Your task to perform on an android device: Search for macbook on ebay, select the first entry, add it to the cart, then select checkout. Image 0: 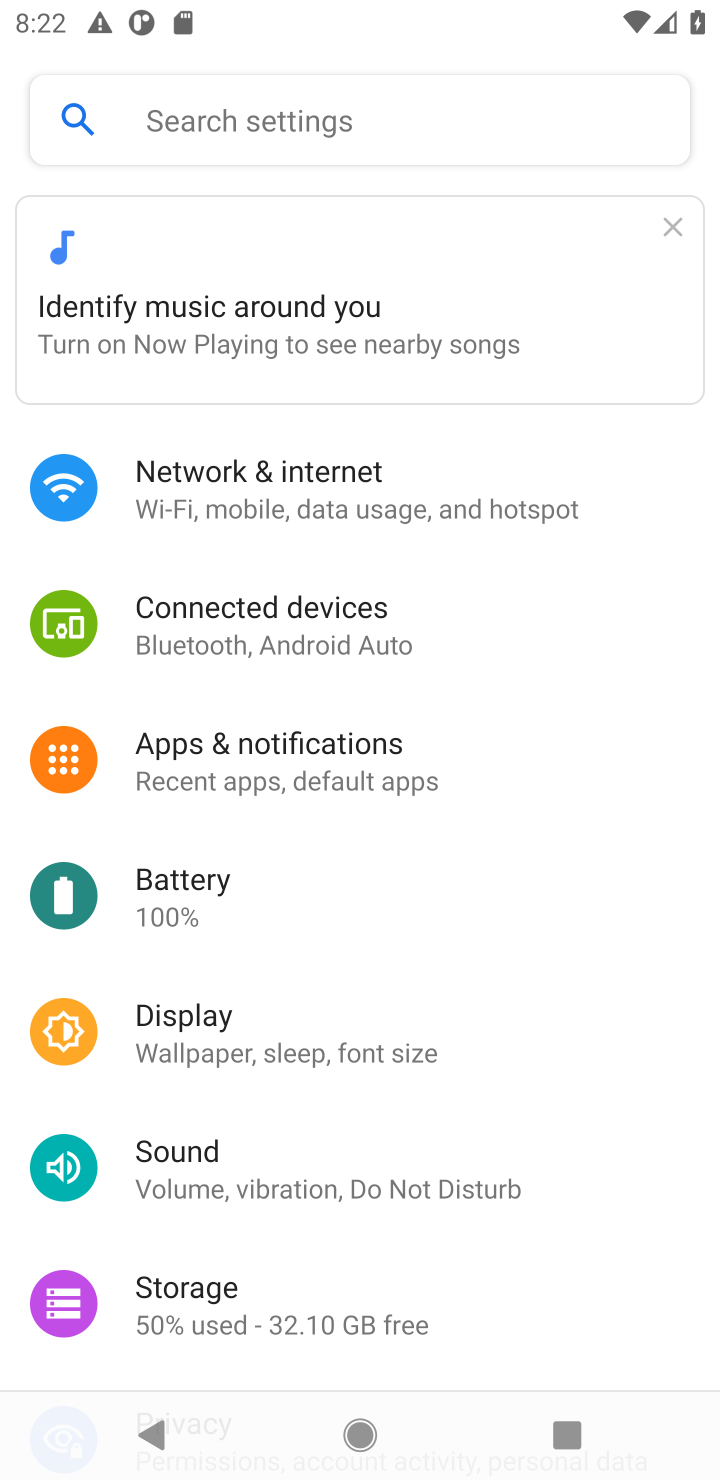
Step 0: press home button
Your task to perform on an android device: Search for macbook on ebay, select the first entry, add it to the cart, then select checkout. Image 1: 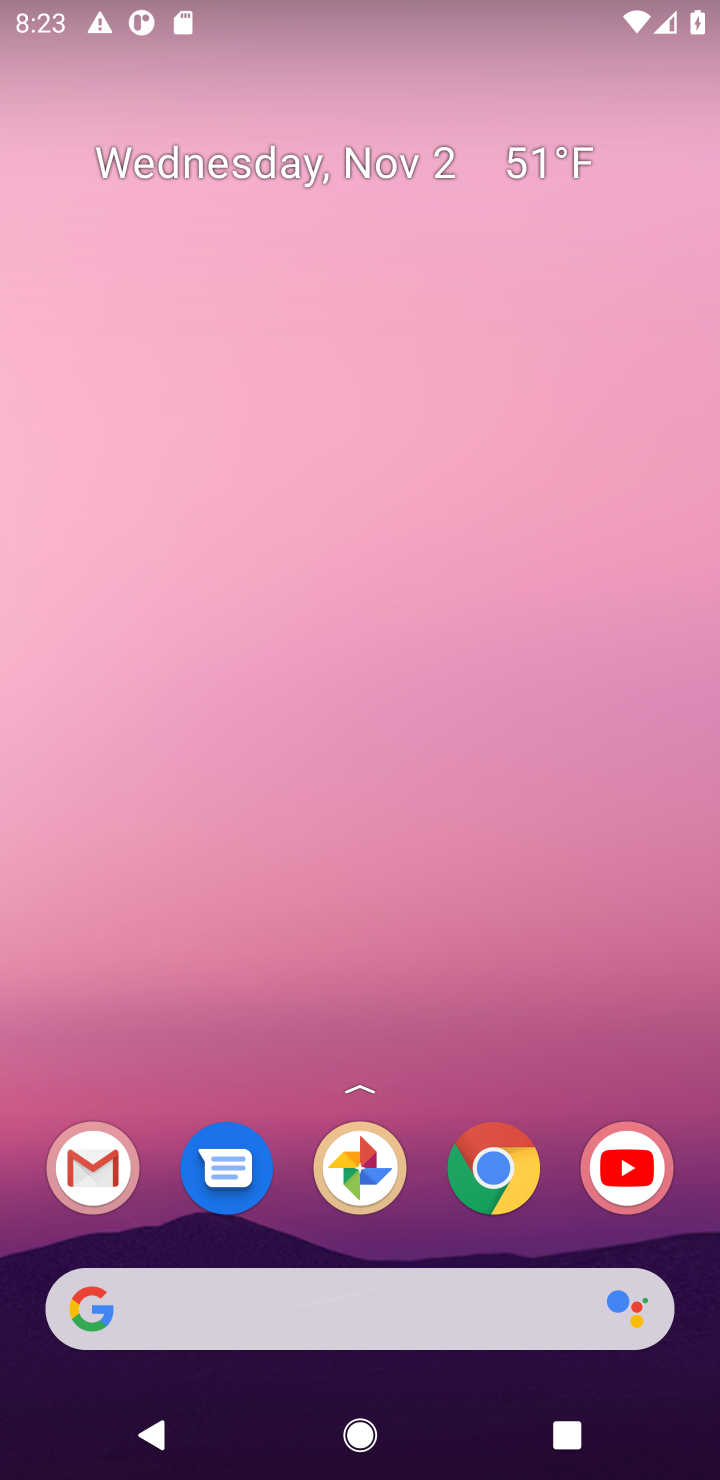
Step 1: click (506, 1165)
Your task to perform on an android device: Search for macbook on ebay, select the first entry, add it to the cart, then select checkout. Image 2: 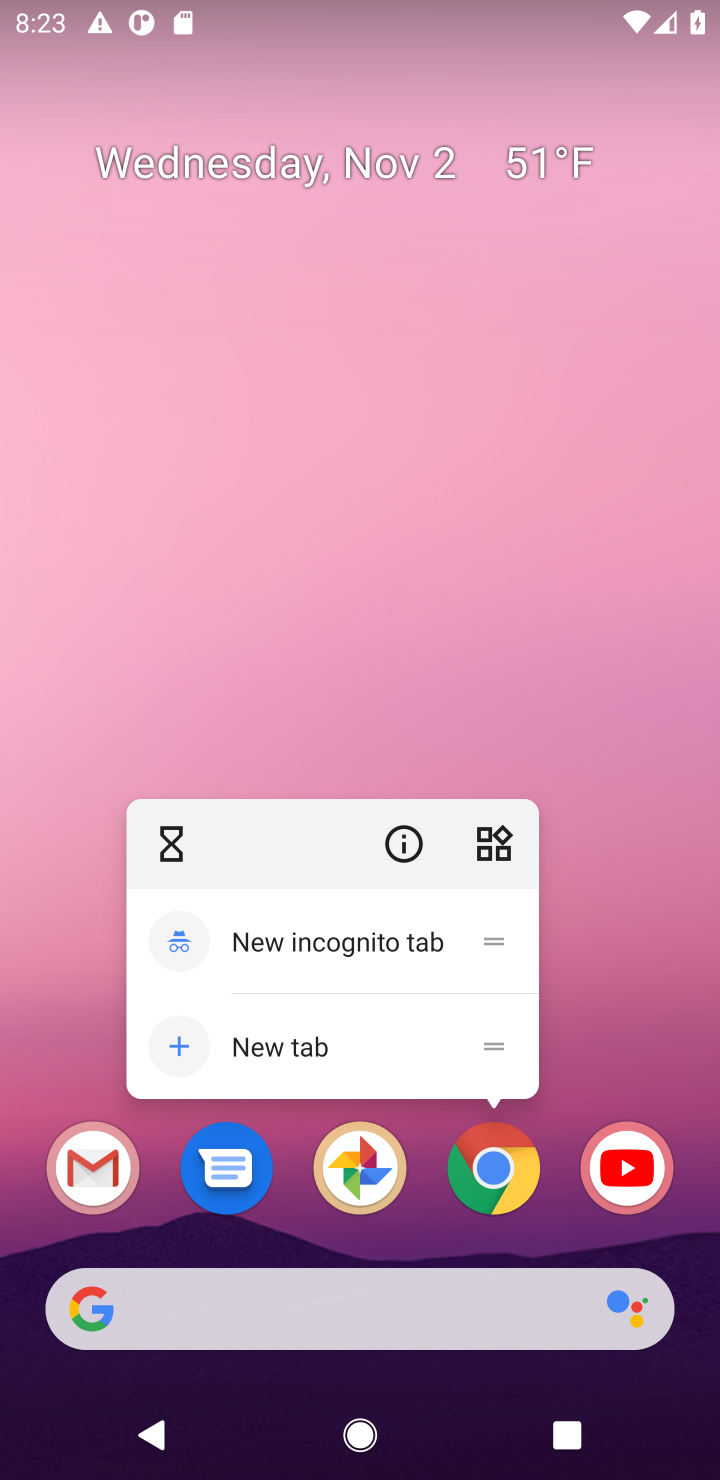
Step 2: click (525, 1183)
Your task to perform on an android device: Search for macbook on ebay, select the first entry, add it to the cart, then select checkout. Image 3: 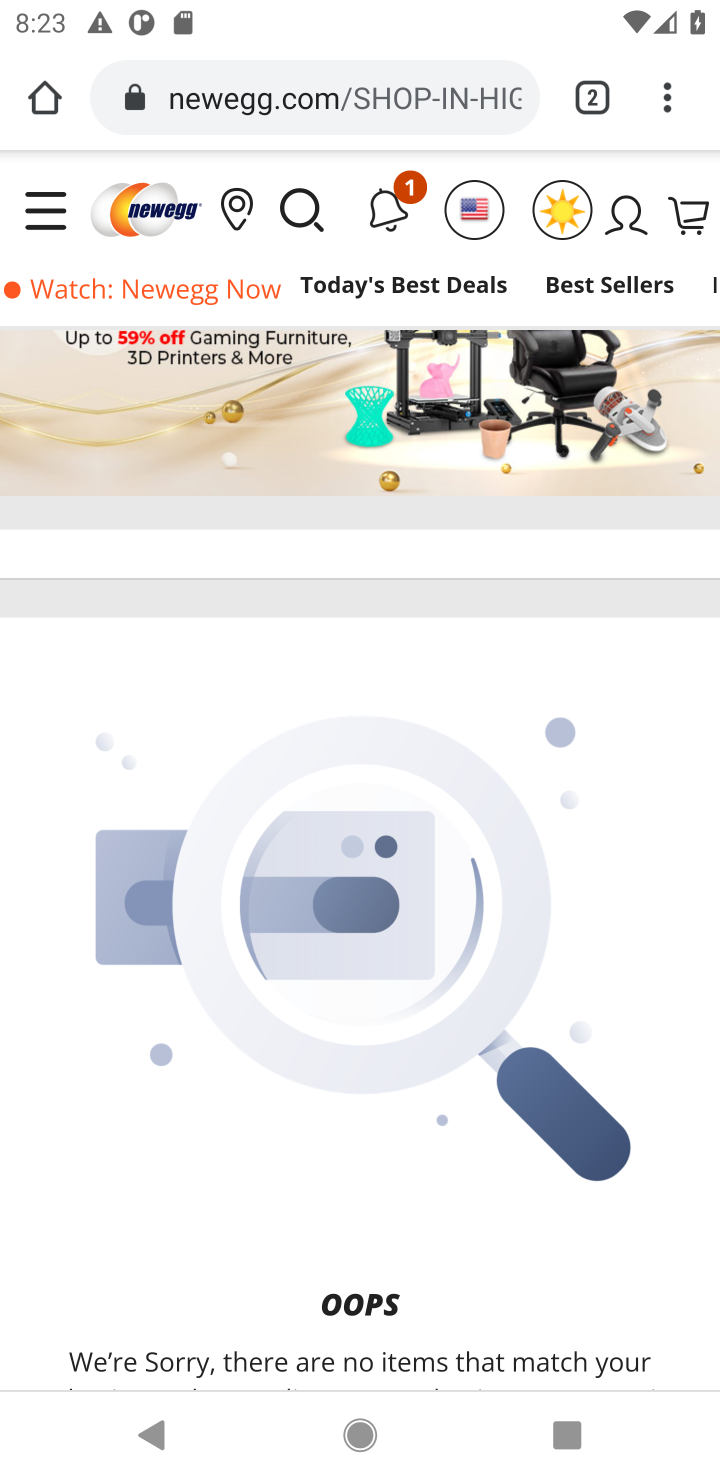
Step 3: click (291, 88)
Your task to perform on an android device: Search for macbook on ebay, select the first entry, add it to the cart, then select checkout. Image 4: 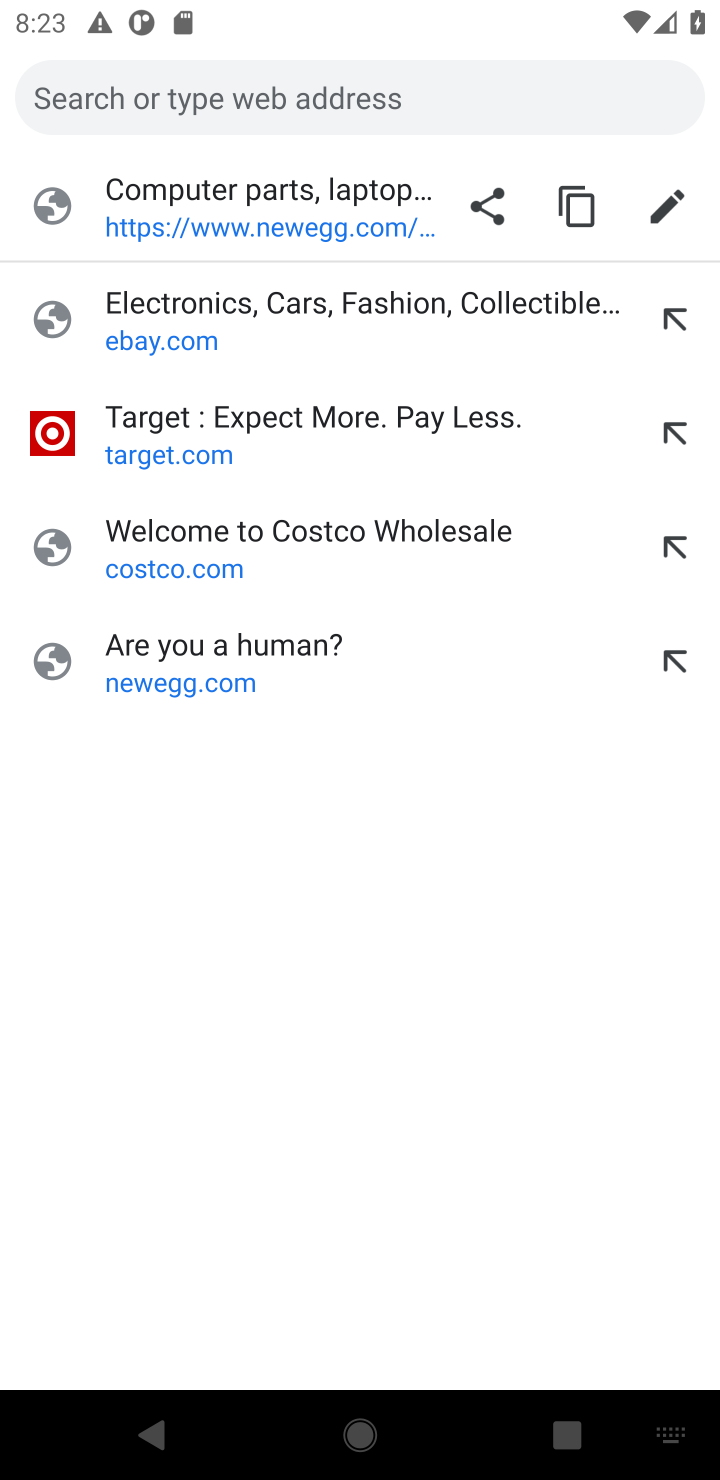
Step 4: click (207, 329)
Your task to perform on an android device: Search for macbook on ebay, select the first entry, add it to the cart, then select checkout. Image 5: 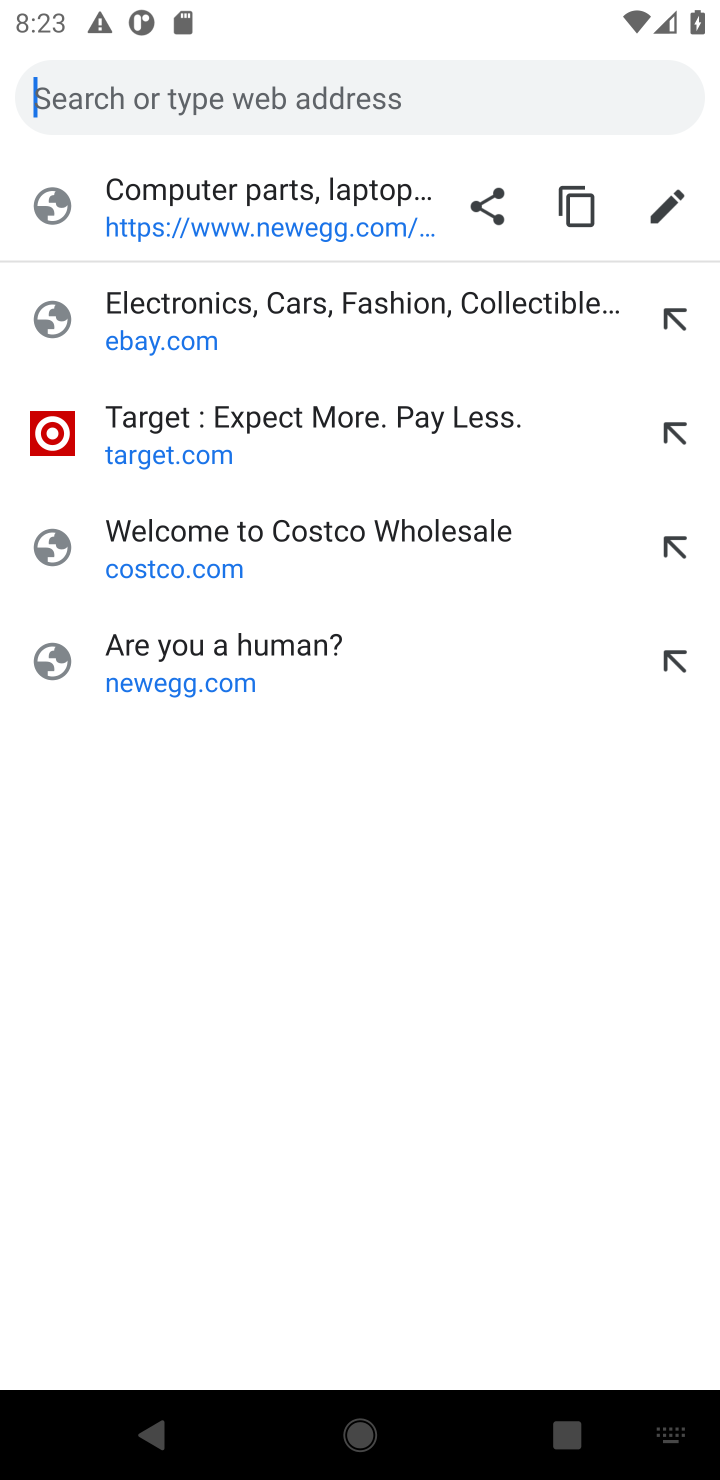
Step 5: click (60, 314)
Your task to perform on an android device: Search for macbook on ebay, select the first entry, add it to the cart, then select checkout. Image 6: 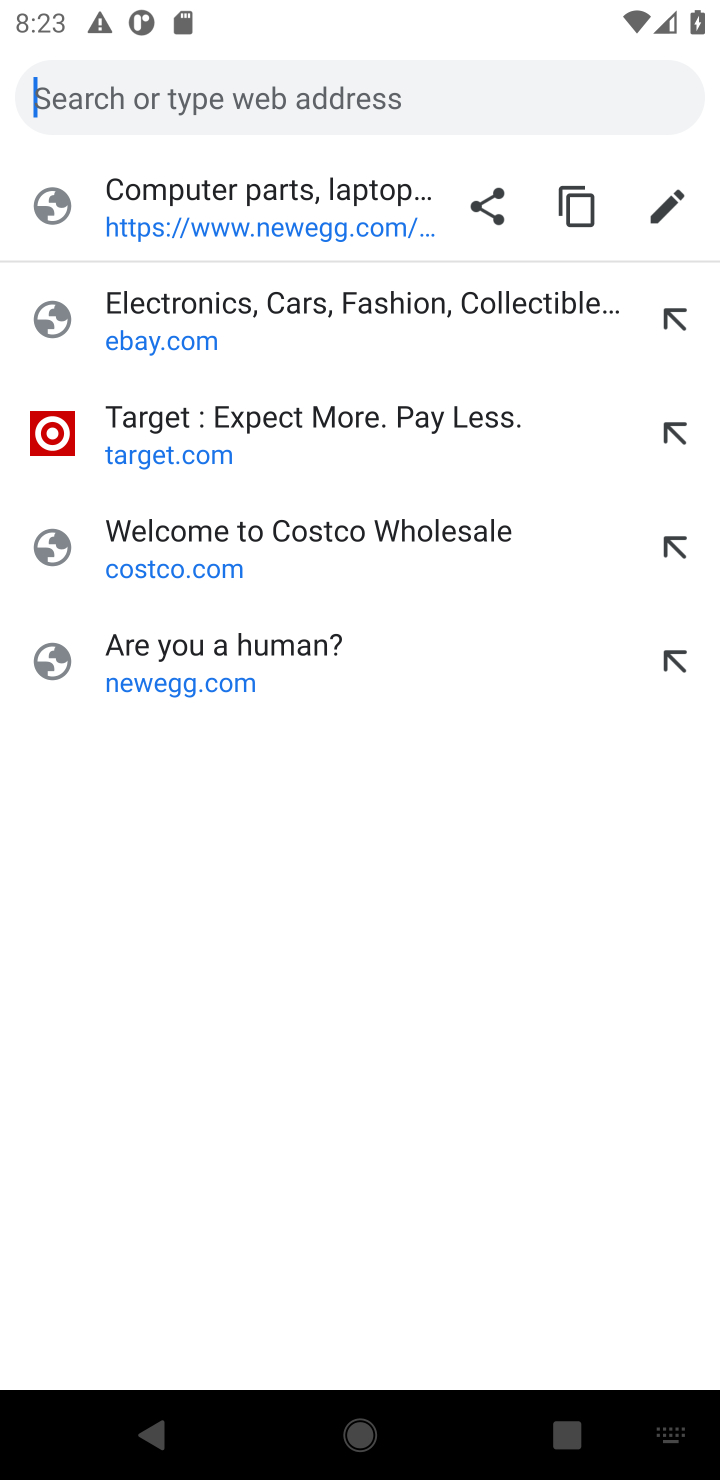
Step 6: click (91, 314)
Your task to perform on an android device: Search for macbook on ebay, select the first entry, add it to the cart, then select checkout. Image 7: 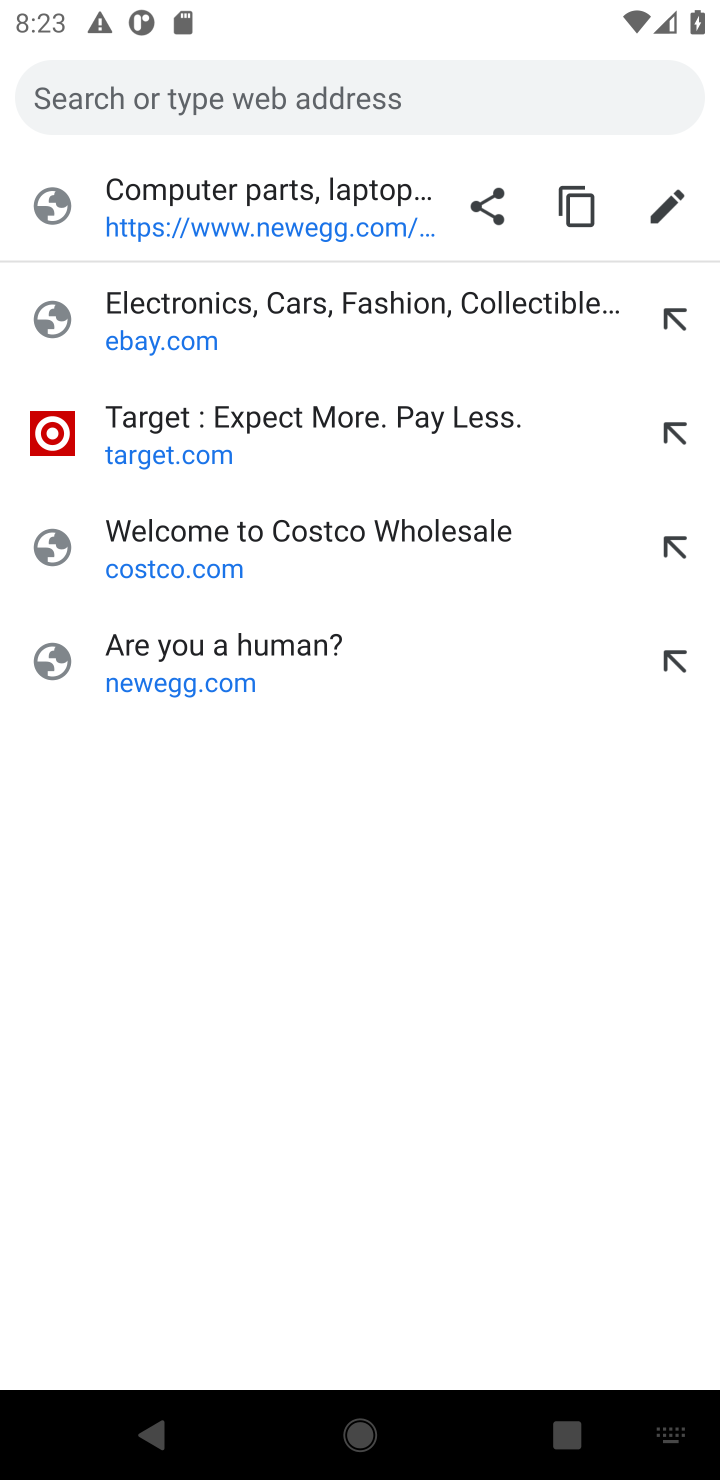
Step 7: click (374, 319)
Your task to perform on an android device: Search for macbook on ebay, select the first entry, add it to the cart, then select checkout. Image 8: 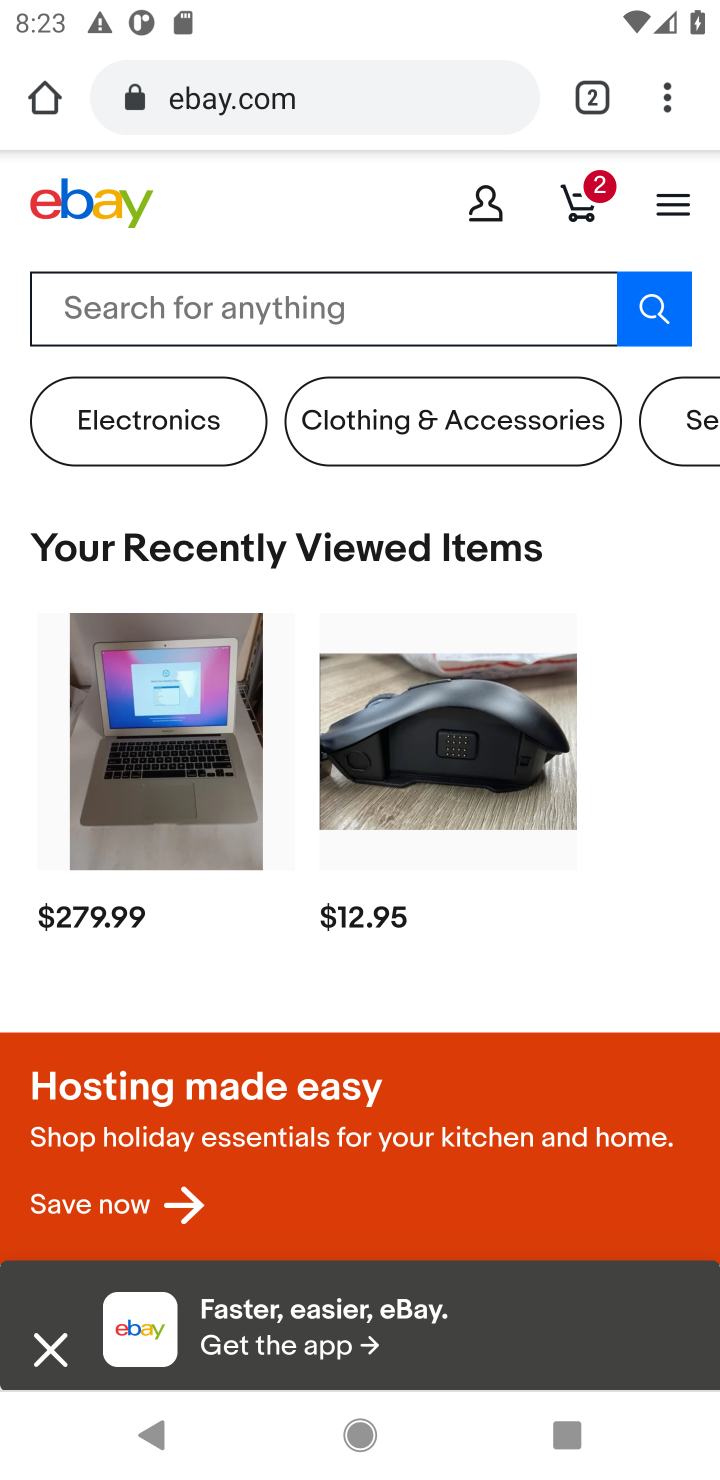
Step 8: click (109, 312)
Your task to perform on an android device: Search for macbook on ebay, select the first entry, add it to the cart, then select checkout. Image 9: 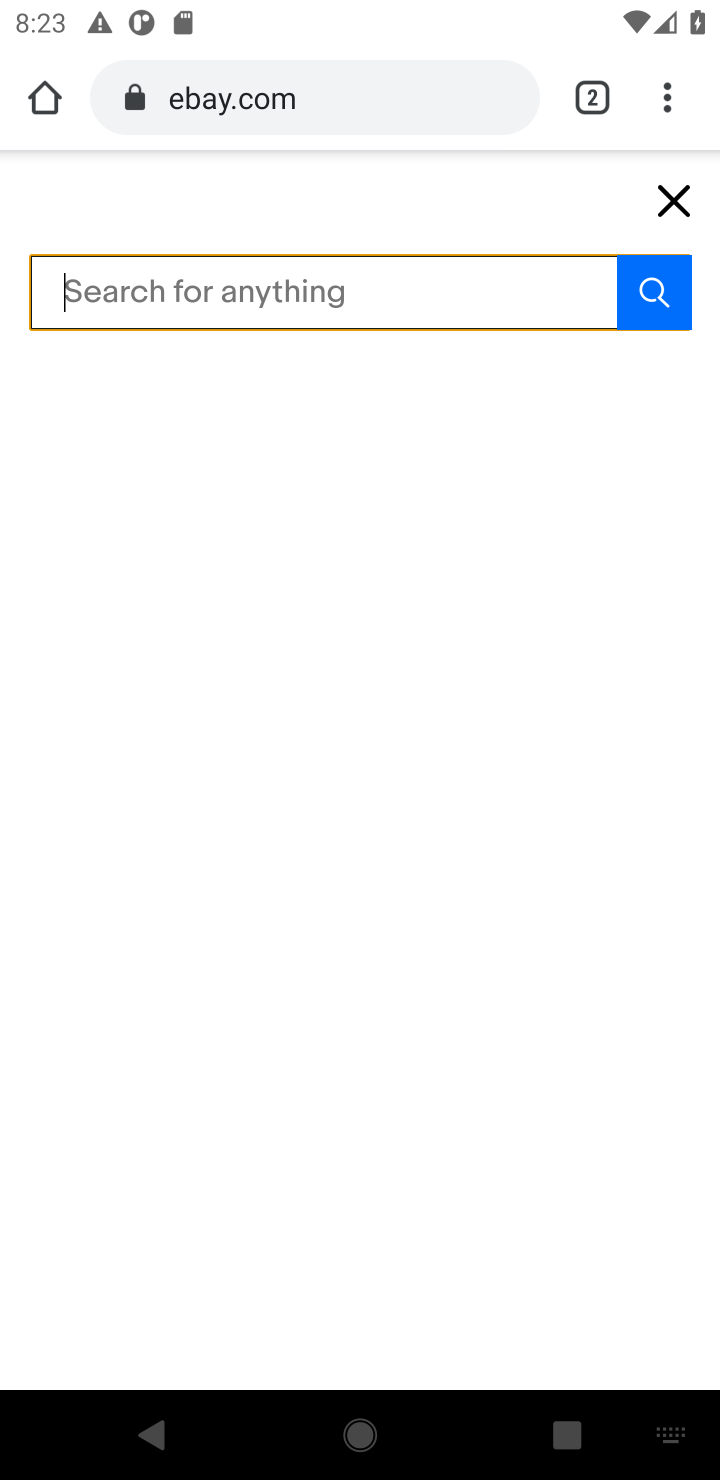
Step 9: click (404, 291)
Your task to perform on an android device: Search for macbook on ebay, select the first entry, add it to the cart, then select checkout. Image 10: 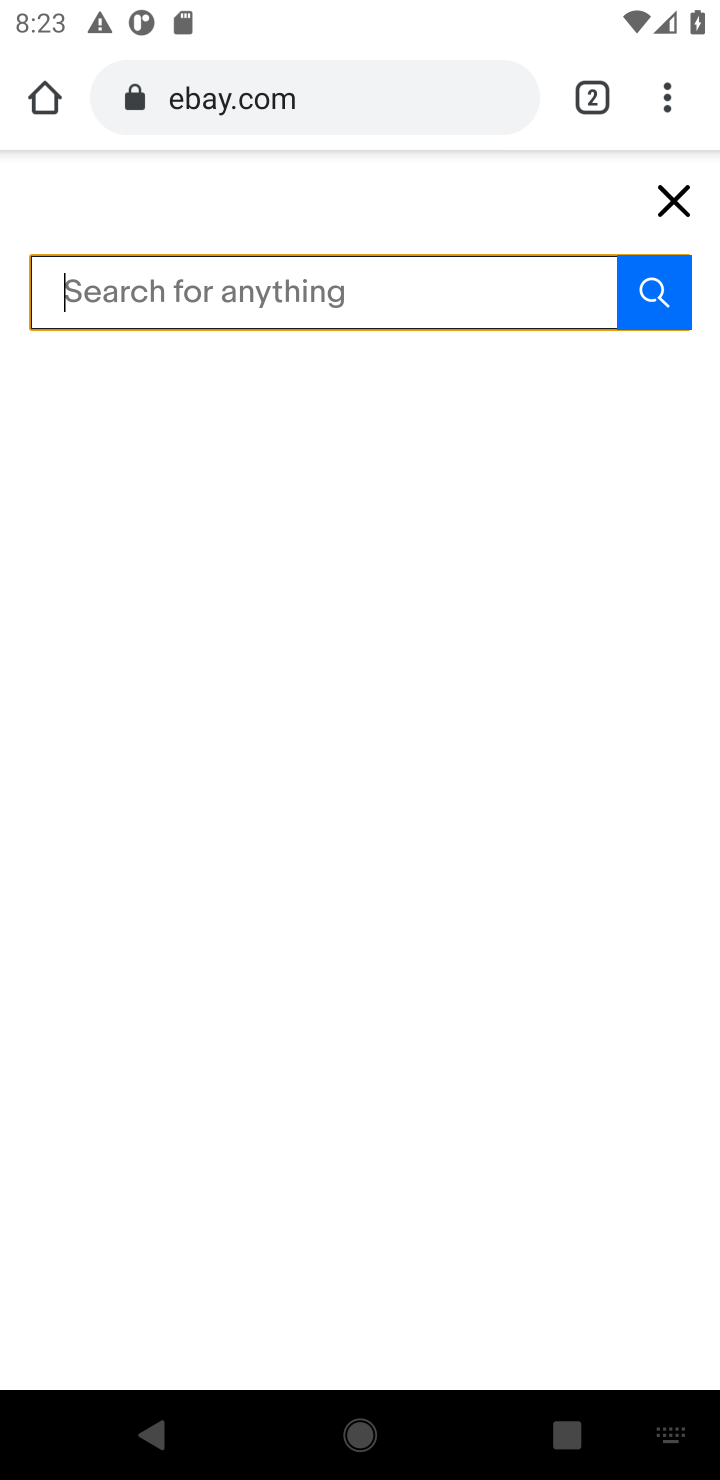
Step 10: click (492, 286)
Your task to perform on an android device: Search for macbook on ebay, select the first entry, add it to the cart, then select checkout. Image 11: 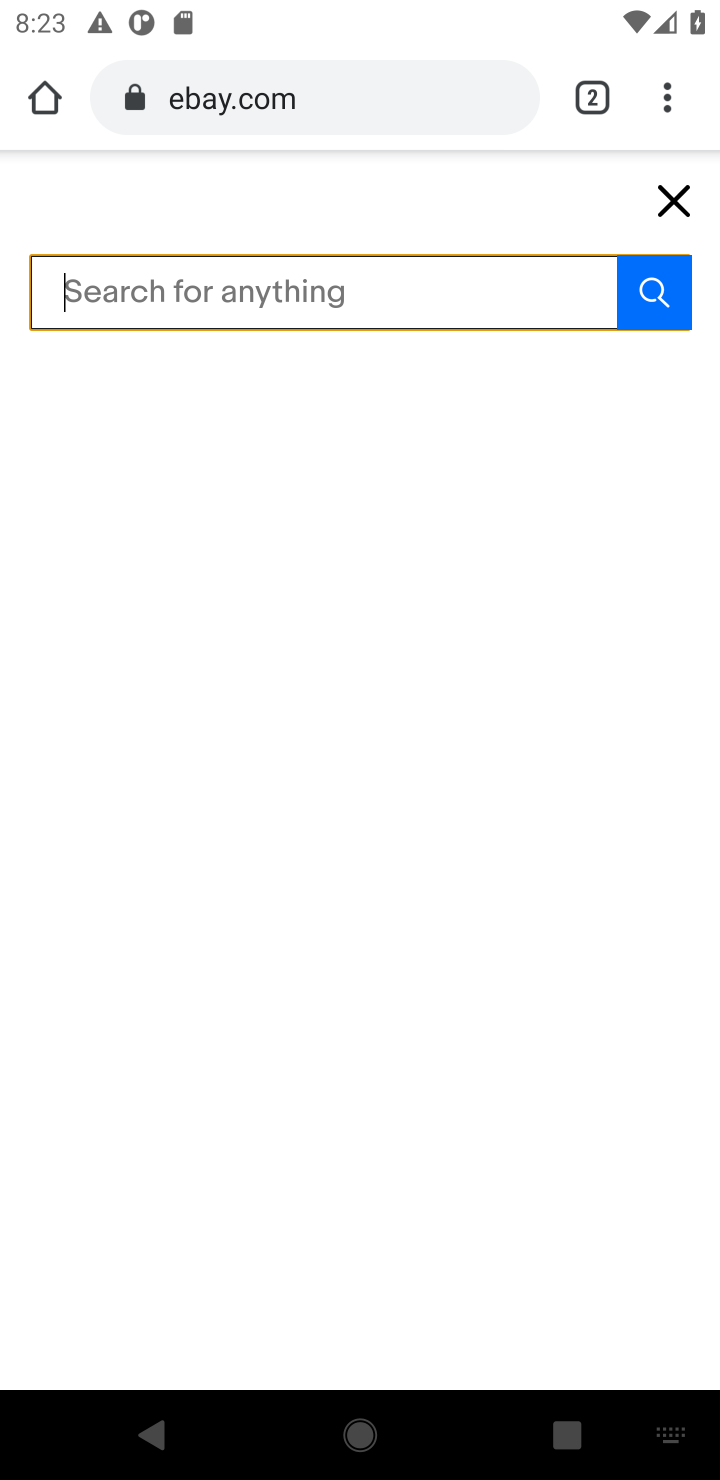
Step 11: click (165, 279)
Your task to perform on an android device: Search for macbook on ebay, select the first entry, add it to the cart, then select checkout. Image 12: 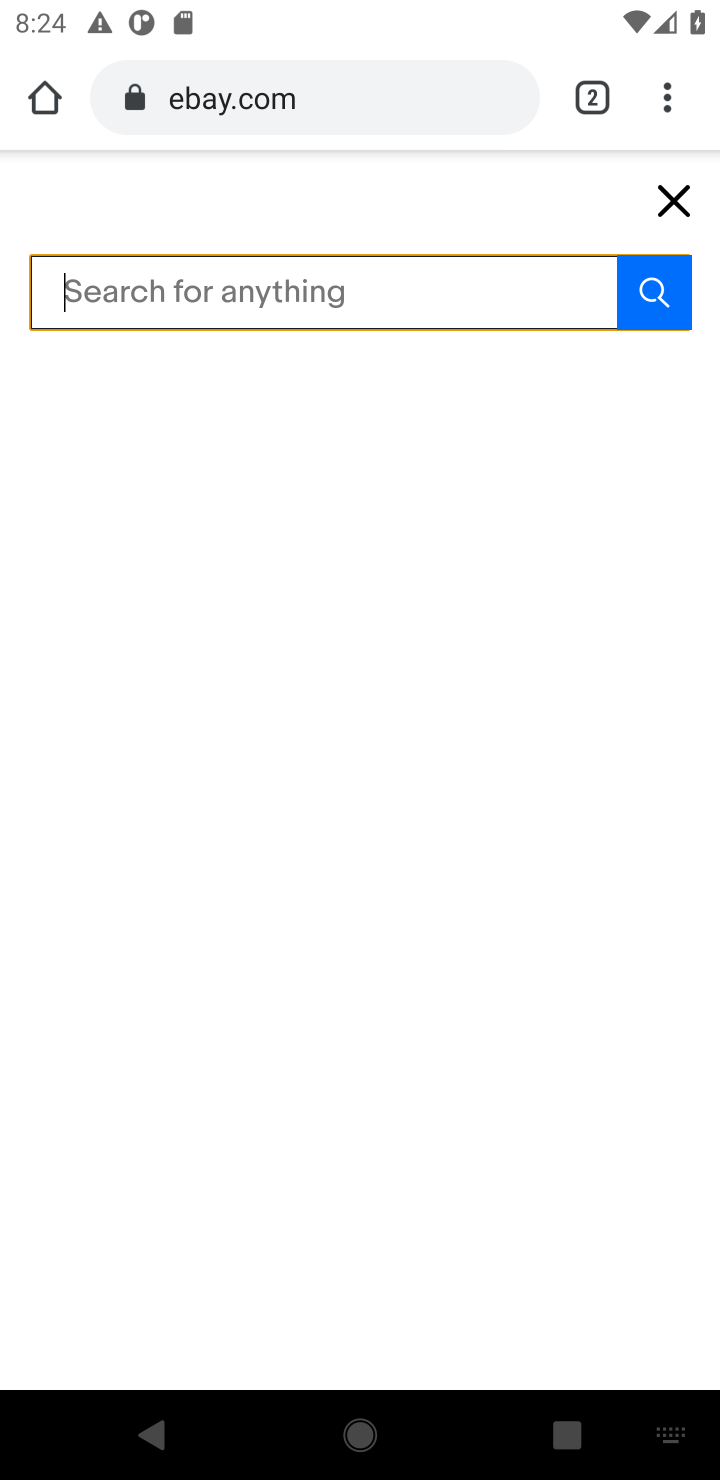
Step 12: type "macbook"
Your task to perform on an android device: Search for macbook on ebay, select the first entry, add it to the cart, then select checkout. Image 13: 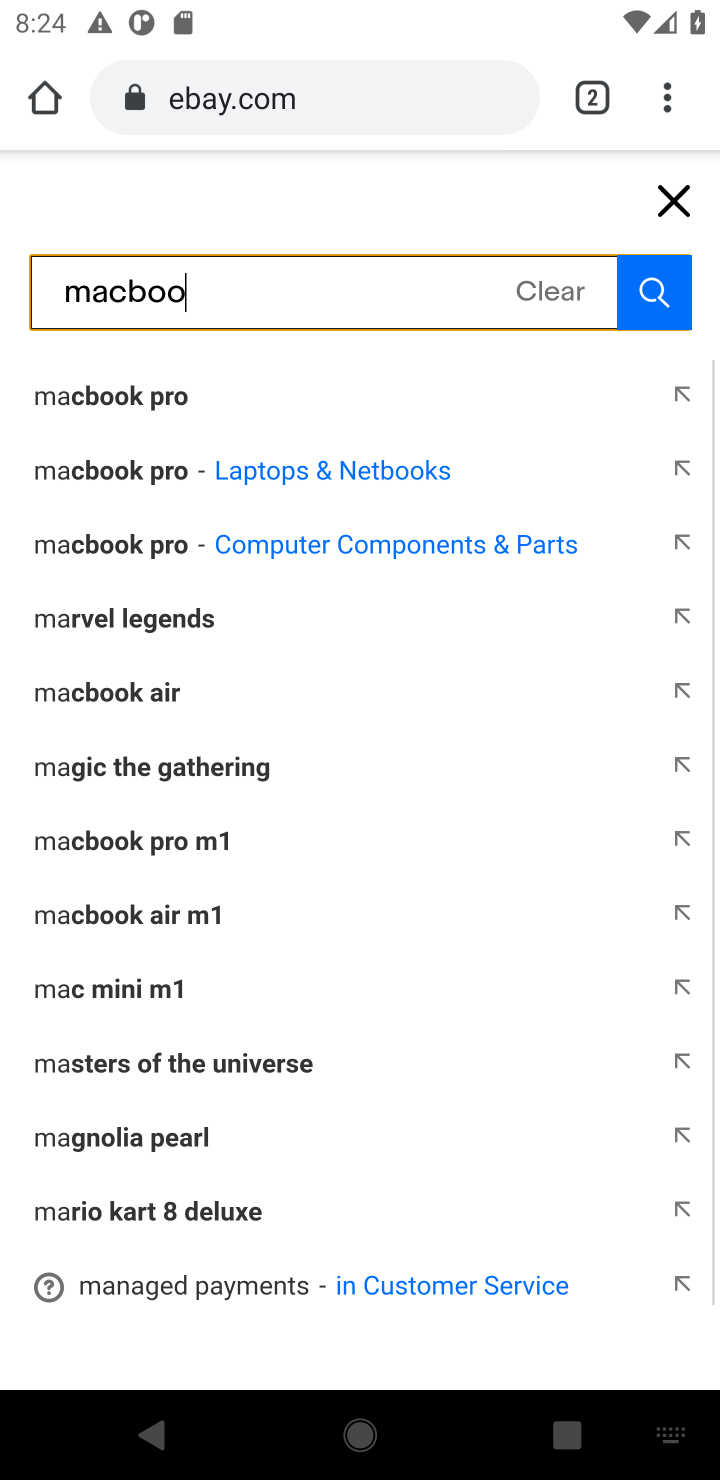
Step 13: type ""
Your task to perform on an android device: Search for macbook on ebay, select the first entry, add it to the cart, then select checkout. Image 14: 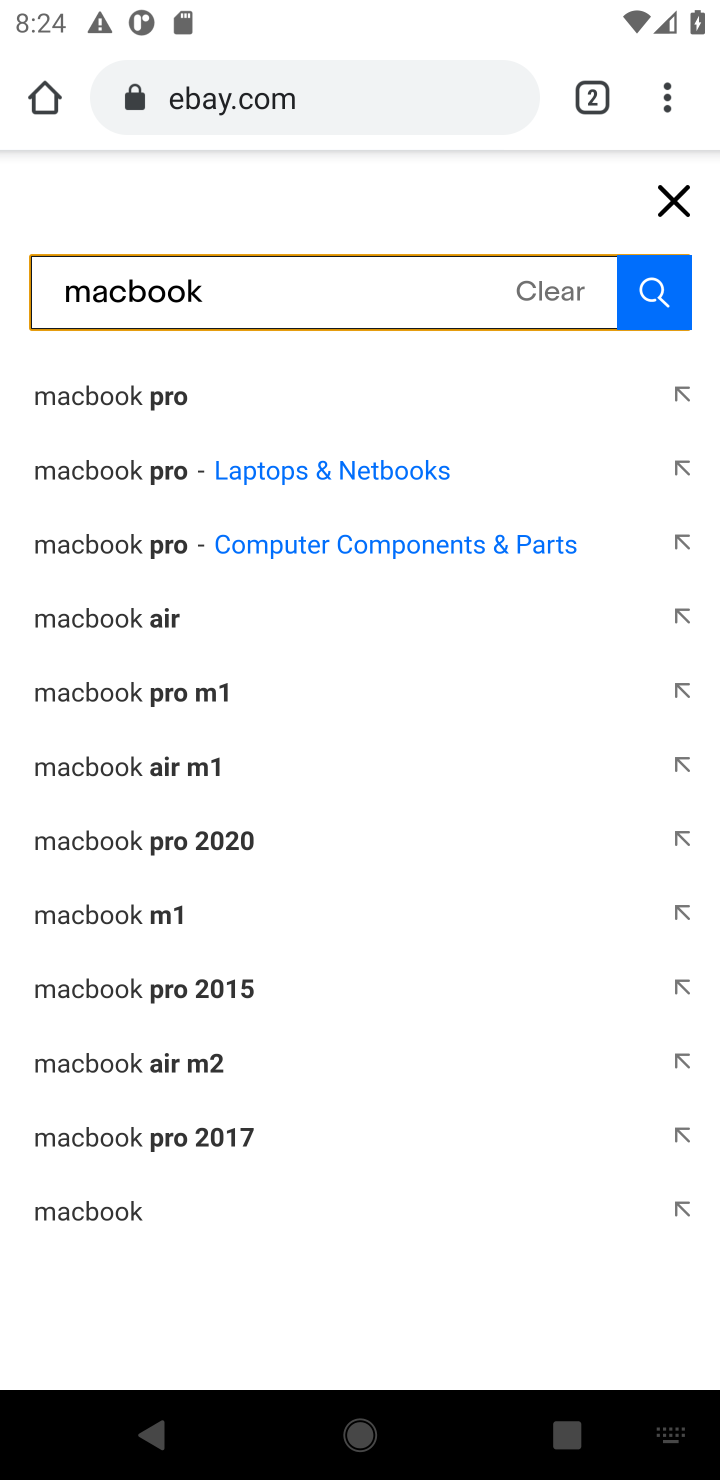
Step 14: click (637, 302)
Your task to perform on an android device: Search for macbook on ebay, select the first entry, add it to the cart, then select checkout. Image 15: 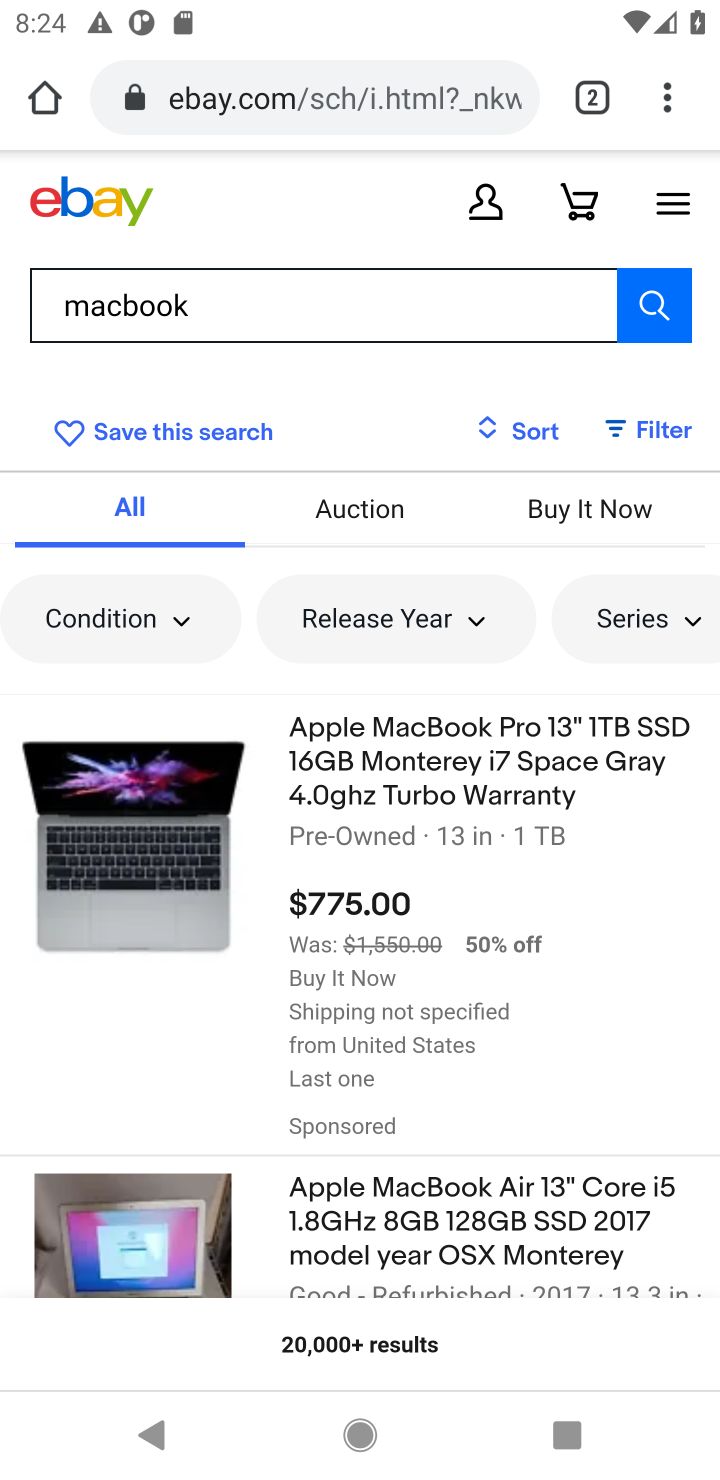
Step 15: click (380, 760)
Your task to perform on an android device: Search for macbook on ebay, select the first entry, add it to the cart, then select checkout. Image 16: 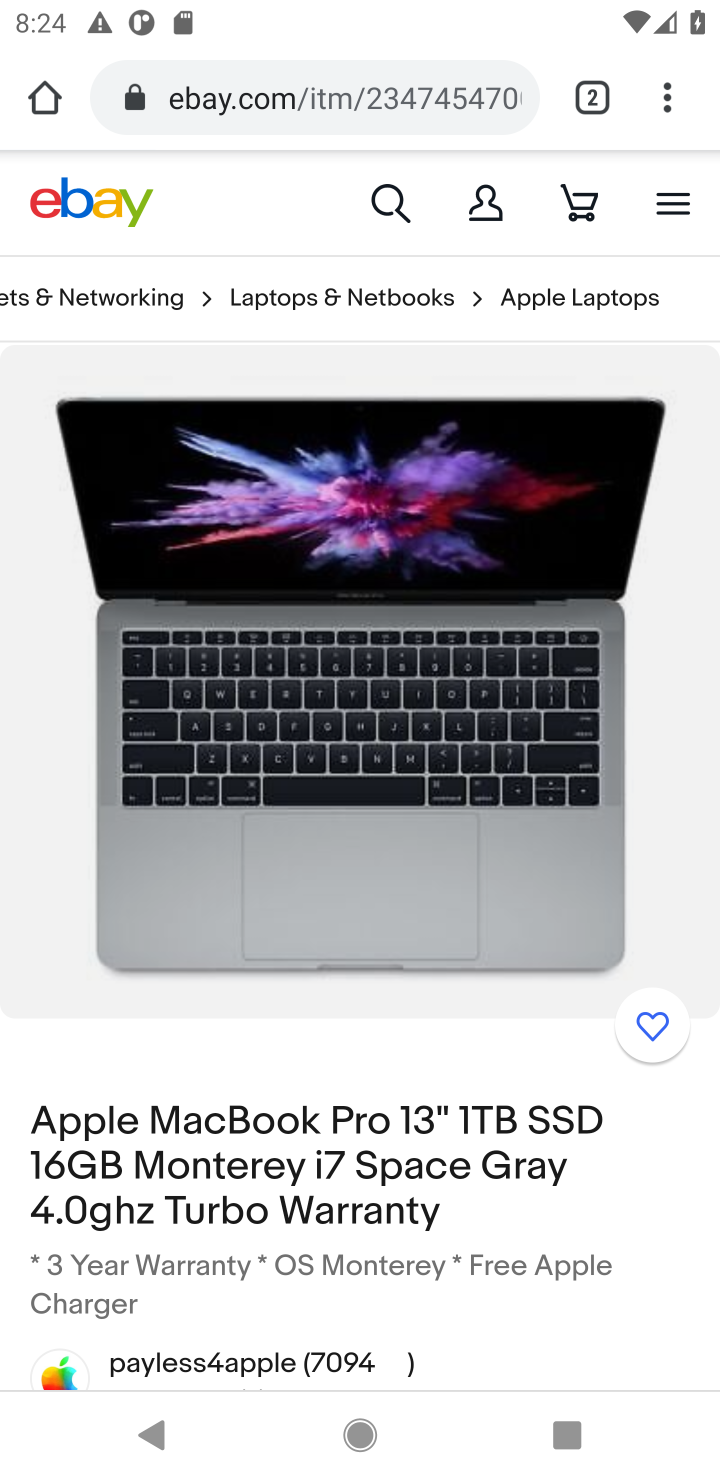
Step 16: drag from (490, 1327) to (467, 435)
Your task to perform on an android device: Search for macbook on ebay, select the first entry, add it to the cart, then select checkout. Image 17: 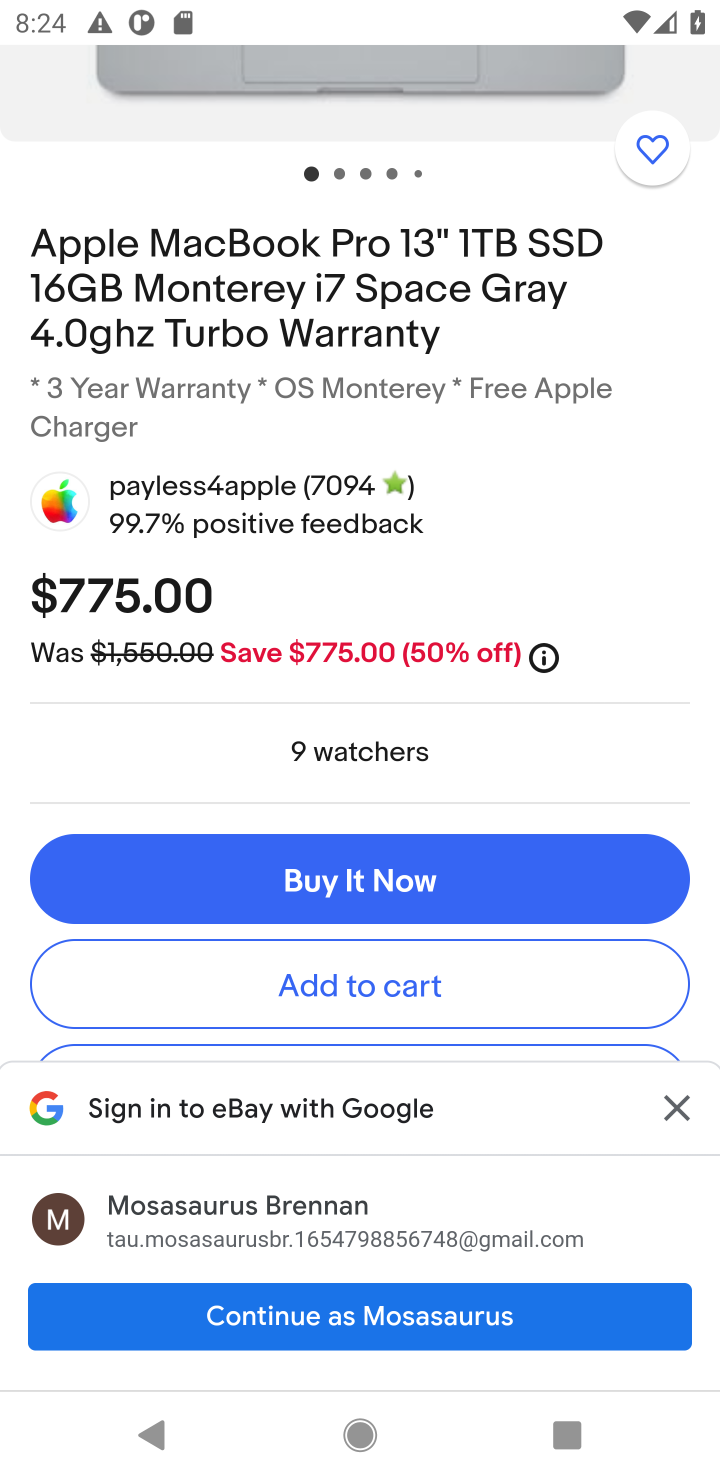
Step 17: click (365, 968)
Your task to perform on an android device: Search for macbook on ebay, select the first entry, add it to the cart, then select checkout. Image 18: 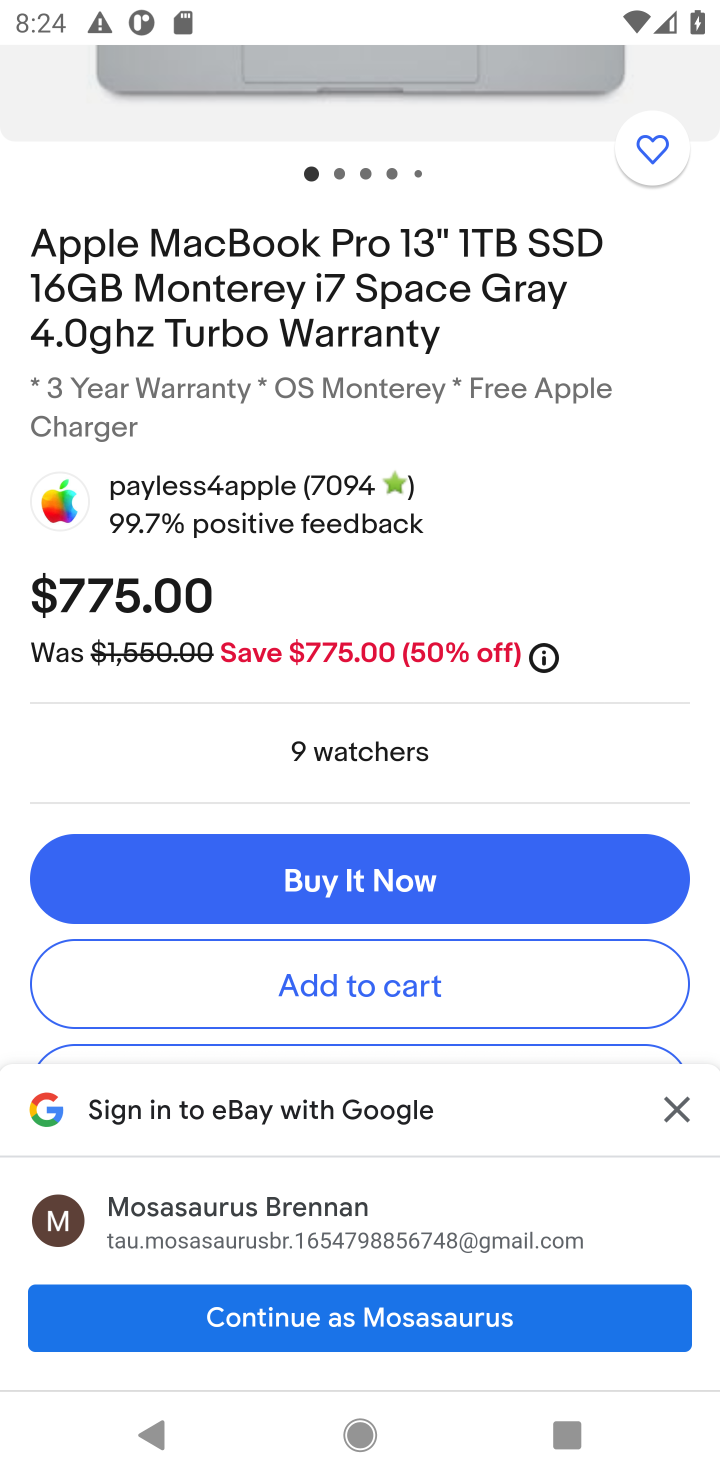
Step 18: click (377, 981)
Your task to perform on an android device: Search for macbook on ebay, select the first entry, add it to the cart, then select checkout. Image 19: 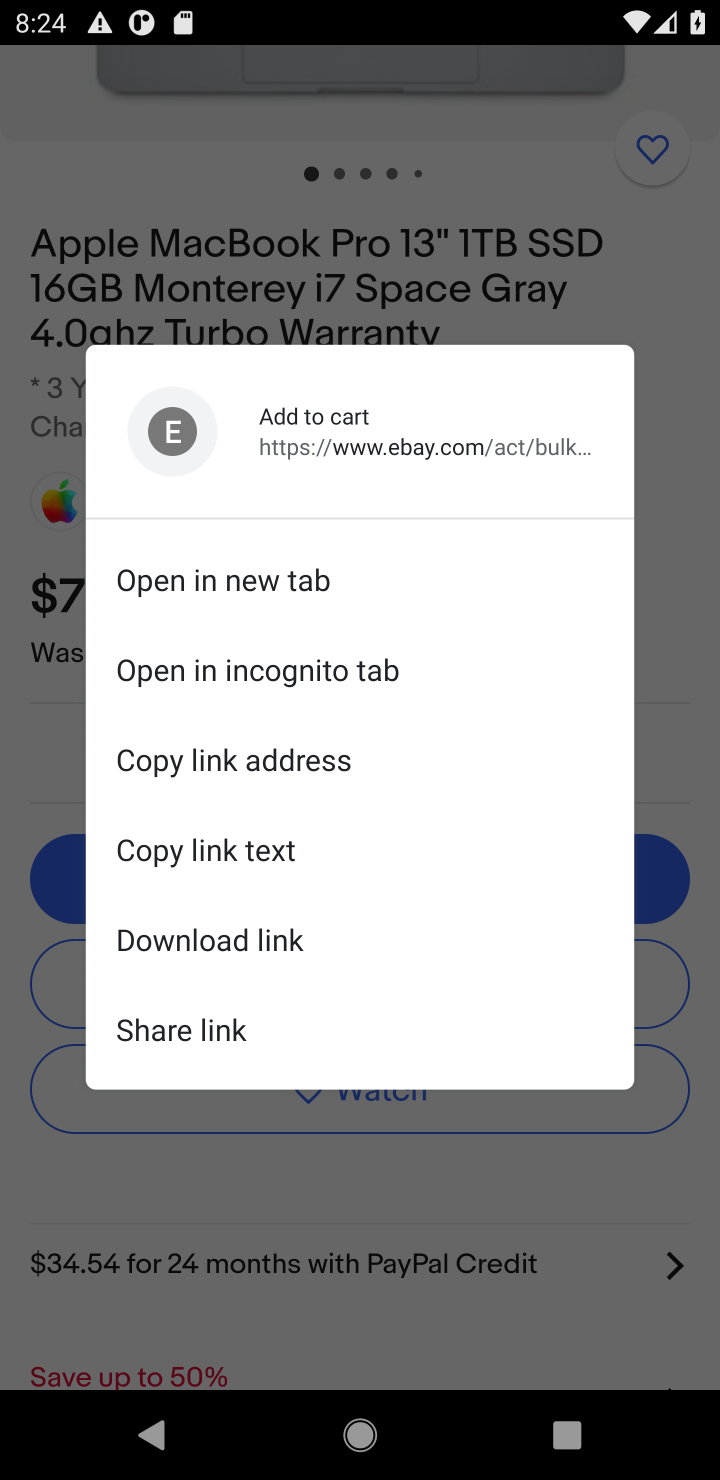
Step 19: click (664, 1004)
Your task to perform on an android device: Search for macbook on ebay, select the first entry, add it to the cart, then select checkout. Image 20: 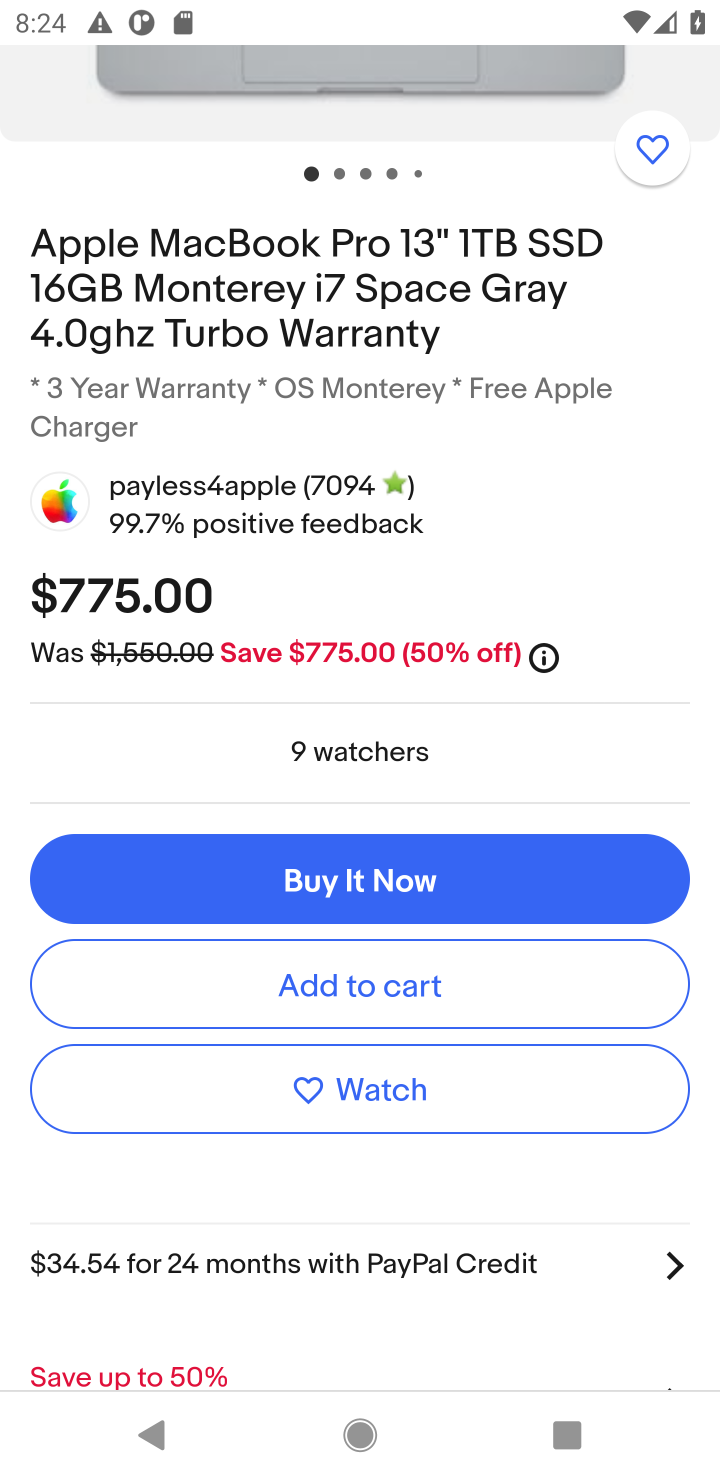
Step 20: click (431, 986)
Your task to perform on an android device: Search for macbook on ebay, select the first entry, add it to the cart, then select checkout. Image 21: 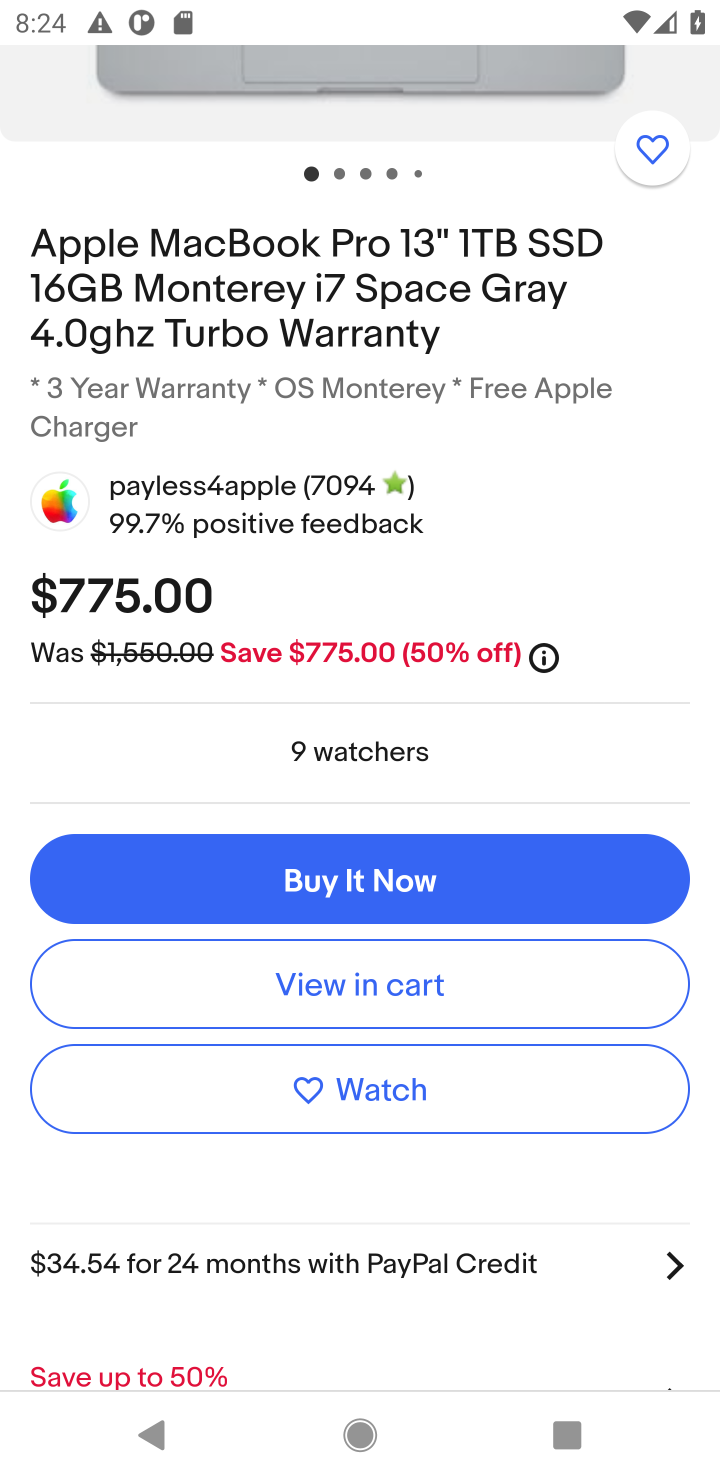
Step 21: click (431, 986)
Your task to perform on an android device: Search for macbook on ebay, select the first entry, add it to the cart, then select checkout. Image 22: 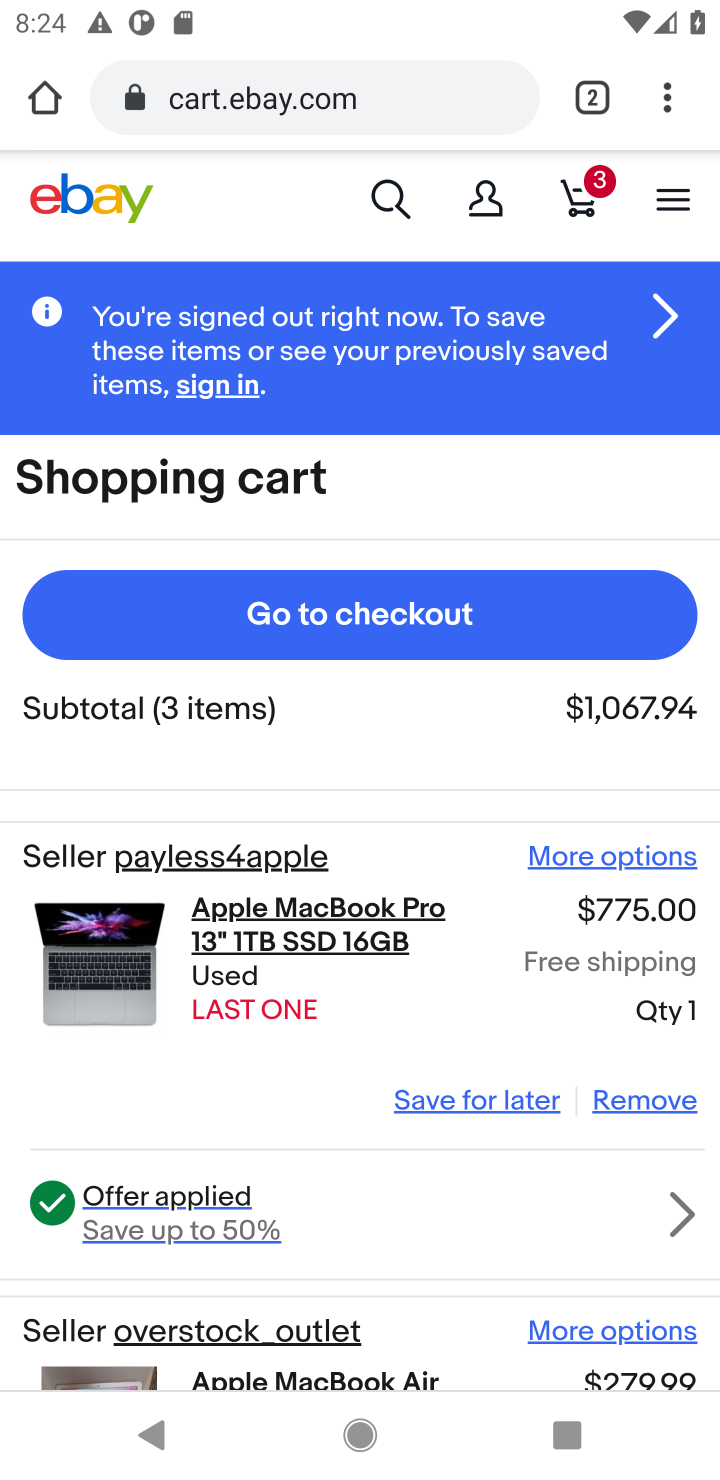
Step 22: click (362, 624)
Your task to perform on an android device: Search for macbook on ebay, select the first entry, add it to the cart, then select checkout. Image 23: 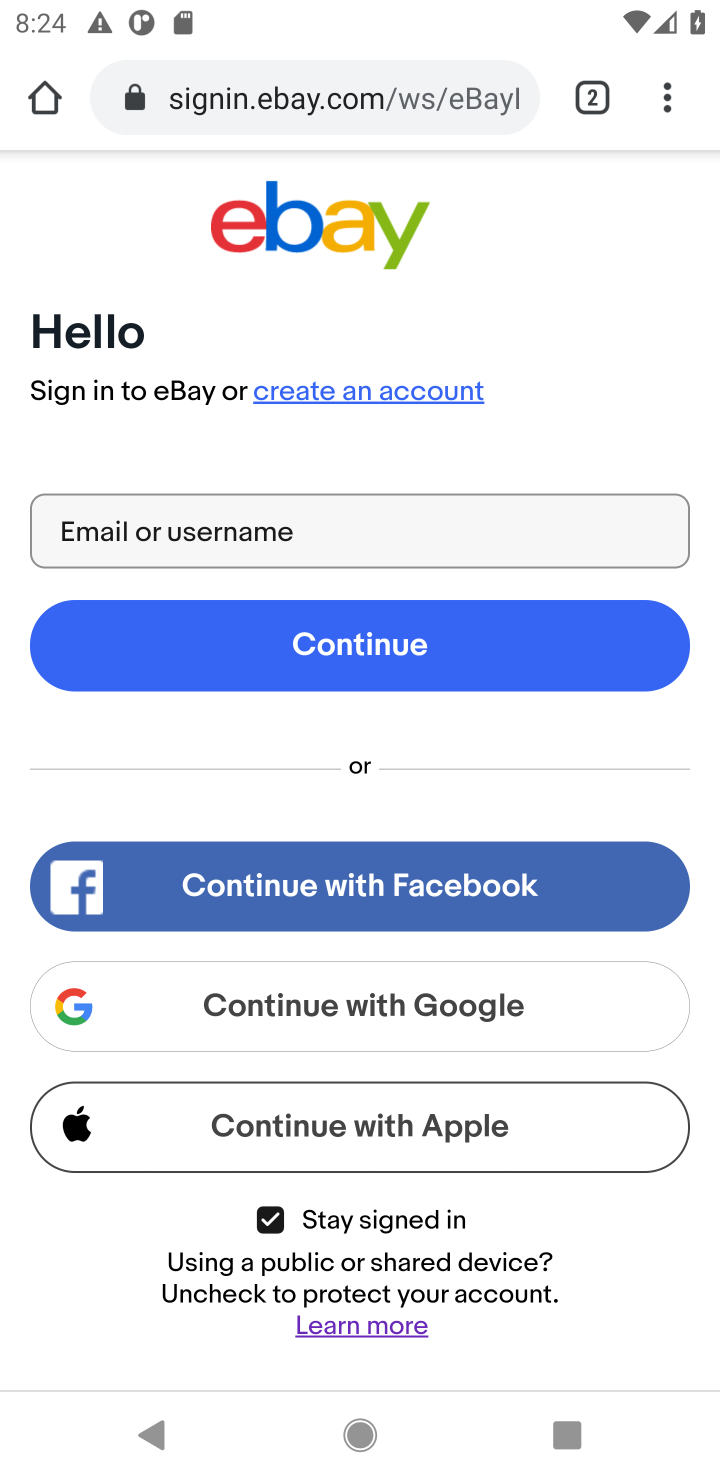
Step 23: task complete